Your task to perform on an android device: open a bookmark in the chrome app Image 0: 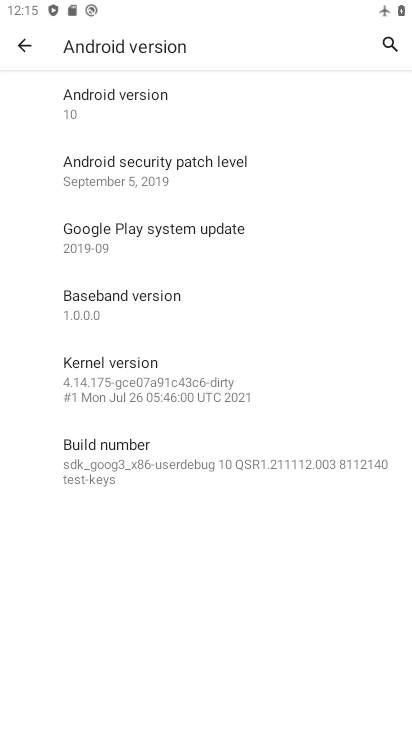
Step 0: press home button
Your task to perform on an android device: open a bookmark in the chrome app Image 1: 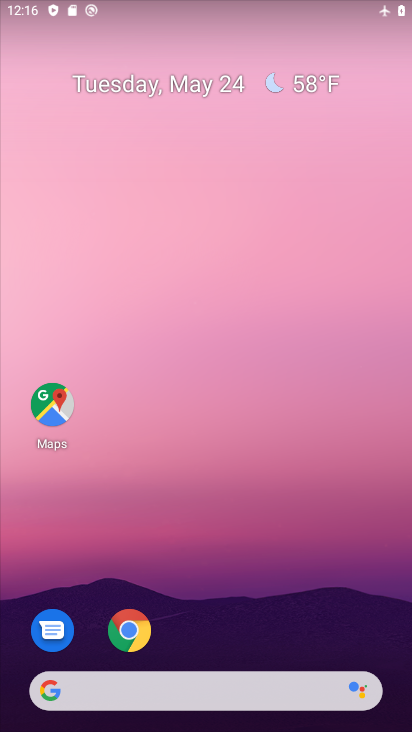
Step 1: click (129, 629)
Your task to perform on an android device: open a bookmark in the chrome app Image 2: 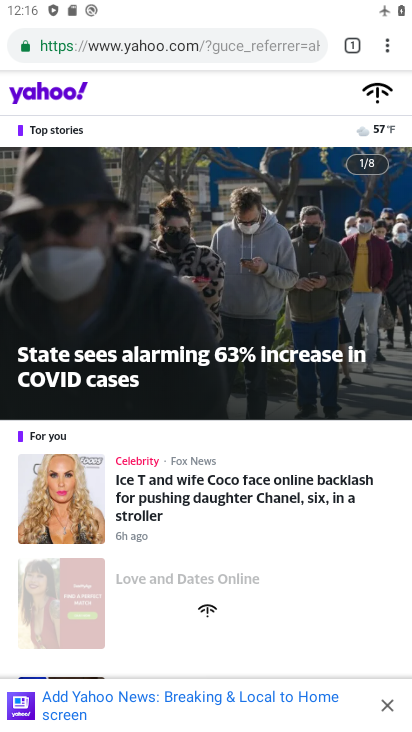
Step 2: click (387, 44)
Your task to perform on an android device: open a bookmark in the chrome app Image 3: 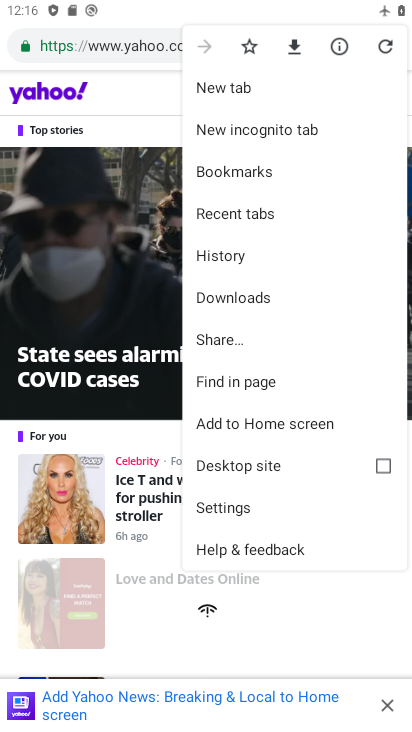
Step 3: click (259, 165)
Your task to perform on an android device: open a bookmark in the chrome app Image 4: 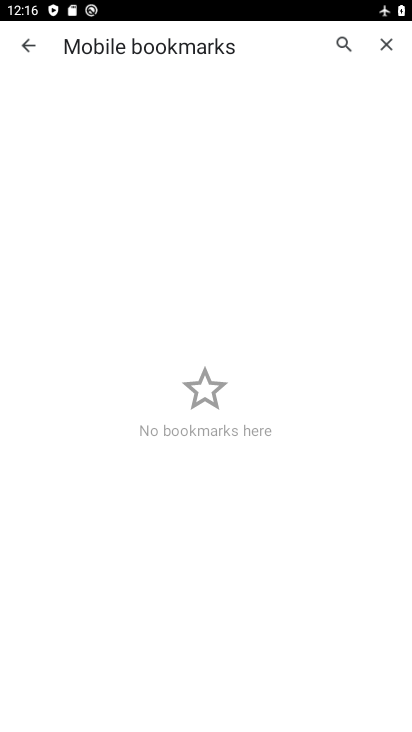
Step 4: task complete